Your task to perform on an android device: add a contact Image 0: 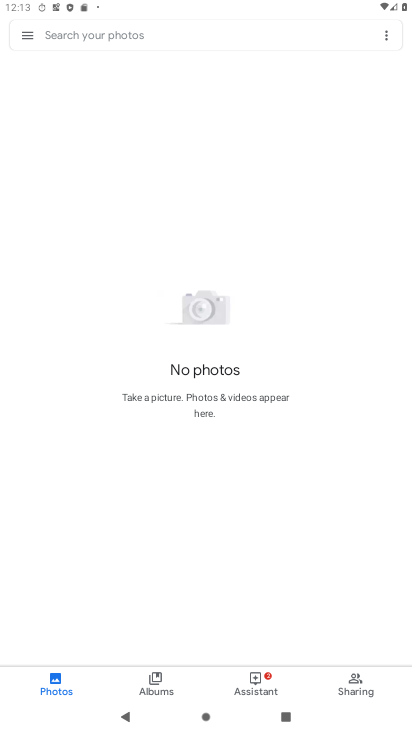
Step 0: press home button
Your task to perform on an android device: add a contact Image 1: 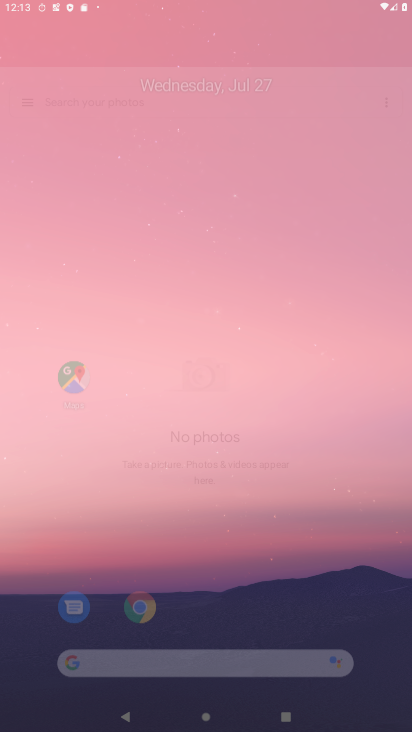
Step 1: drag from (387, 661) to (220, 17)
Your task to perform on an android device: add a contact Image 2: 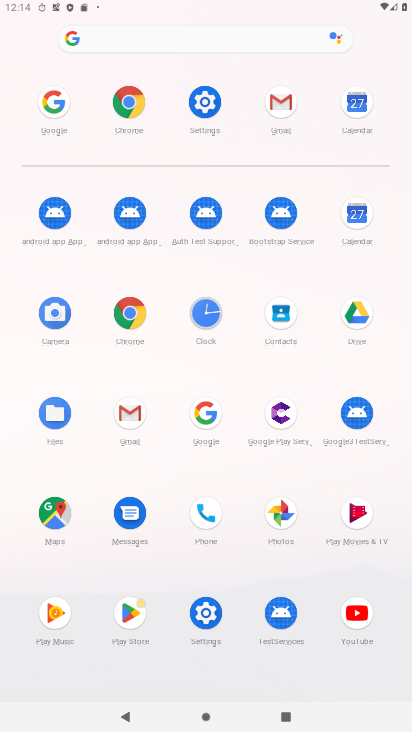
Step 2: click (276, 314)
Your task to perform on an android device: add a contact Image 3: 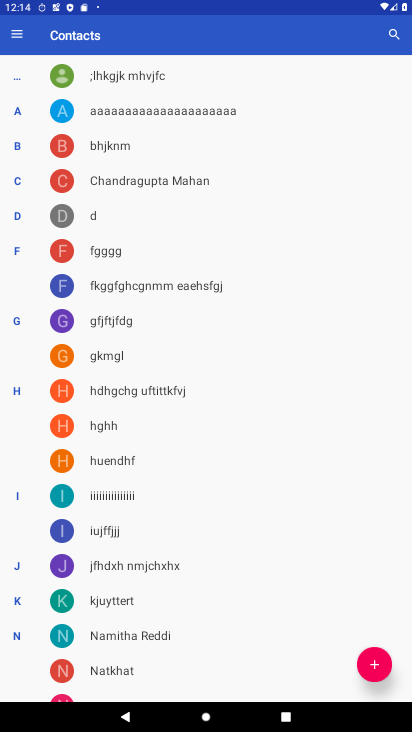
Step 3: click (375, 652)
Your task to perform on an android device: add a contact Image 4: 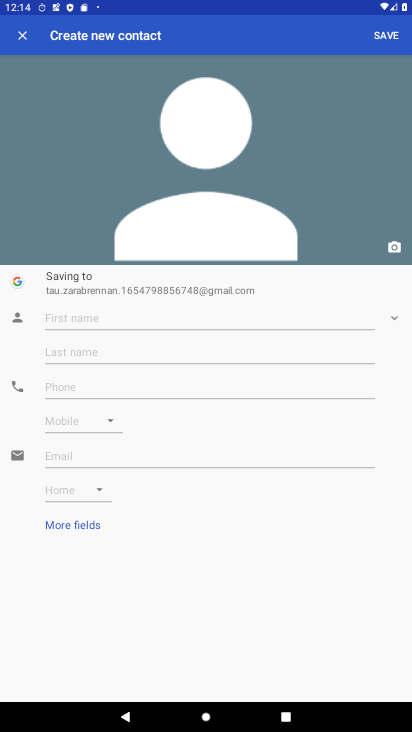
Step 4: click (89, 316)
Your task to perform on an android device: add a contact Image 5: 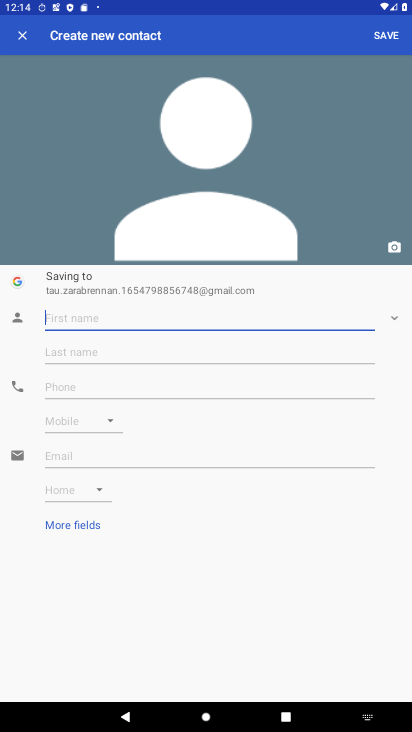
Step 5: type "jaspreet"
Your task to perform on an android device: add a contact Image 6: 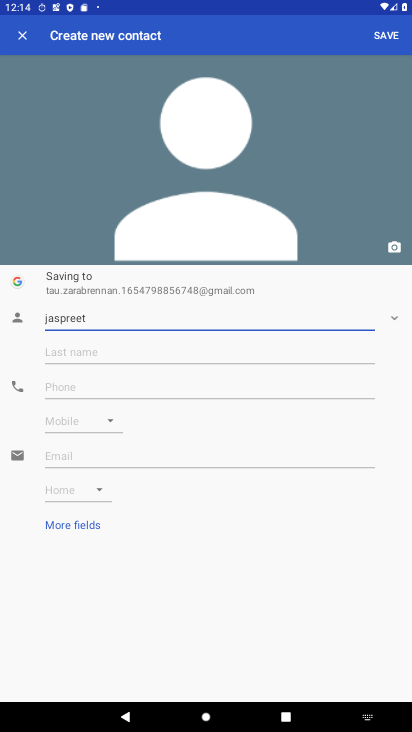
Step 6: click (386, 31)
Your task to perform on an android device: add a contact Image 7: 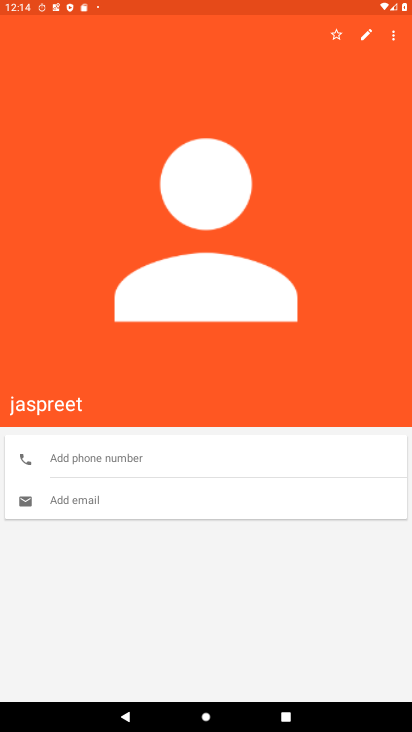
Step 7: task complete